Your task to perform on an android device: delete the emails in spam in the gmail app Image 0: 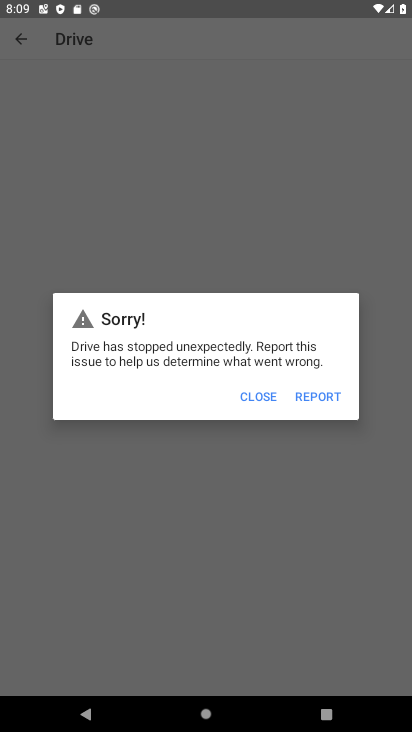
Step 0: press home button
Your task to perform on an android device: delete the emails in spam in the gmail app Image 1: 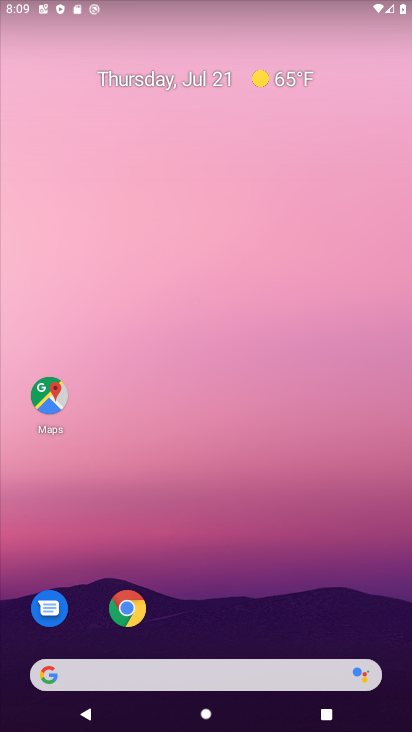
Step 1: drag from (157, 680) to (255, 77)
Your task to perform on an android device: delete the emails in spam in the gmail app Image 2: 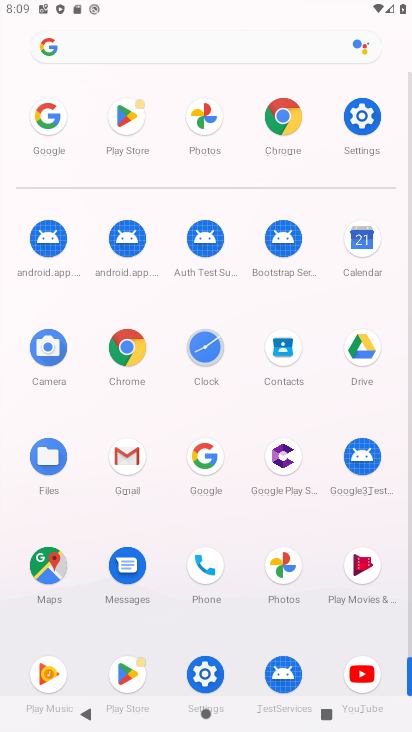
Step 2: click (127, 454)
Your task to perform on an android device: delete the emails in spam in the gmail app Image 3: 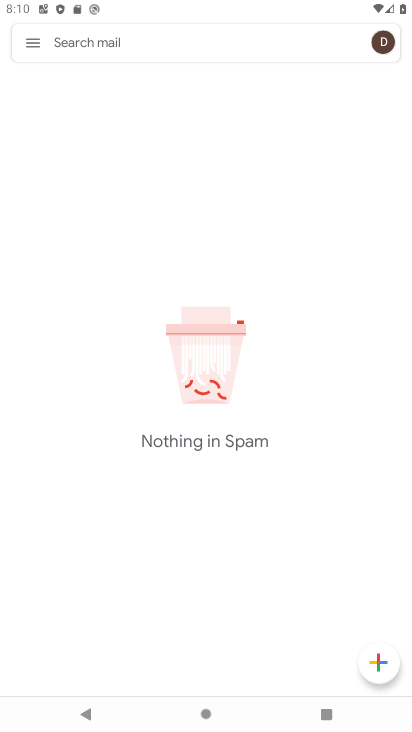
Step 3: click (35, 41)
Your task to perform on an android device: delete the emails in spam in the gmail app Image 4: 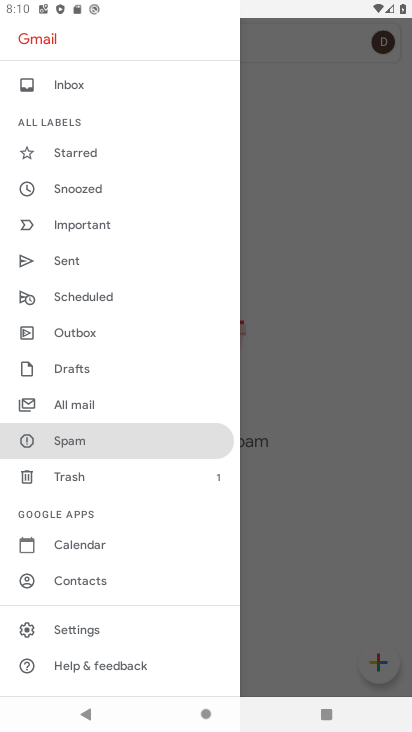
Step 4: click (78, 445)
Your task to perform on an android device: delete the emails in spam in the gmail app Image 5: 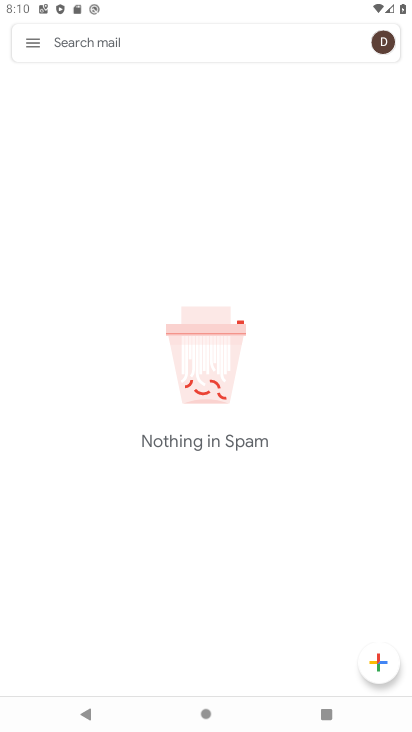
Step 5: task complete